Your task to perform on an android device: Go to Yahoo.com Image 0: 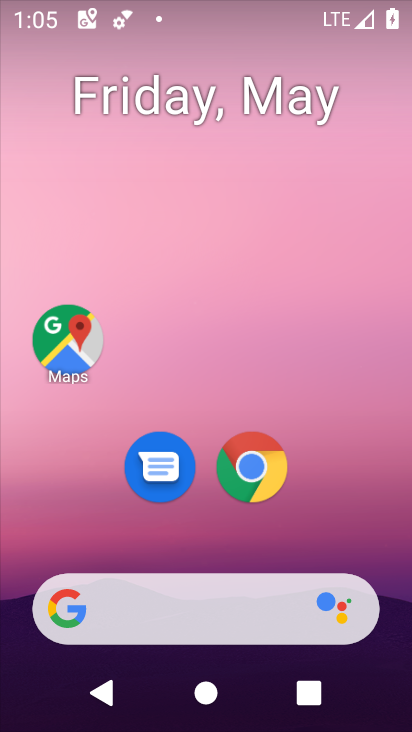
Step 0: drag from (350, 509) to (363, 16)
Your task to perform on an android device: Go to Yahoo.com Image 1: 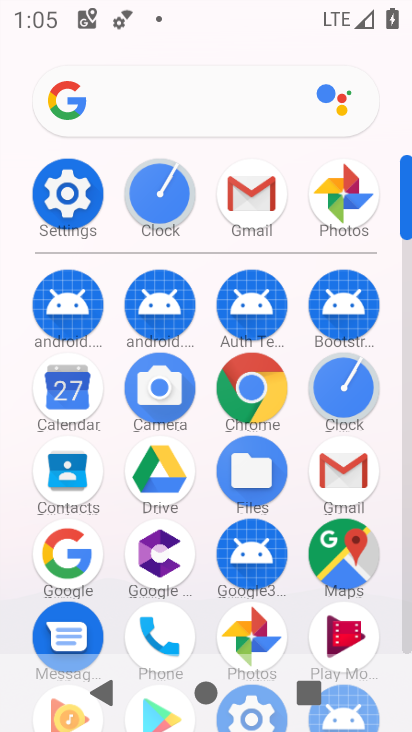
Step 1: click (257, 394)
Your task to perform on an android device: Go to Yahoo.com Image 2: 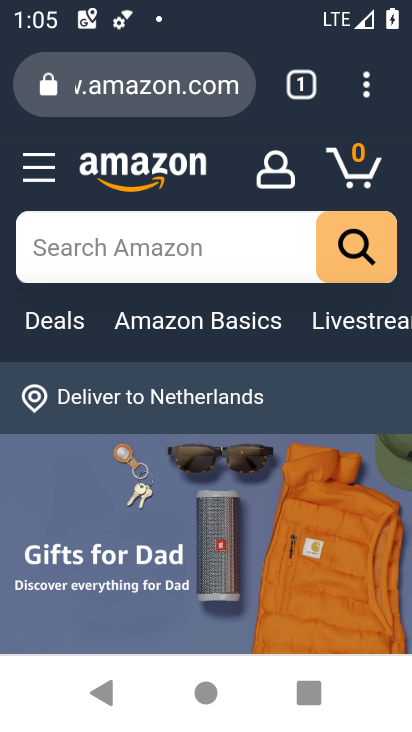
Step 2: click (155, 75)
Your task to perform on an android device: Go to Yahoo.com Image 3: 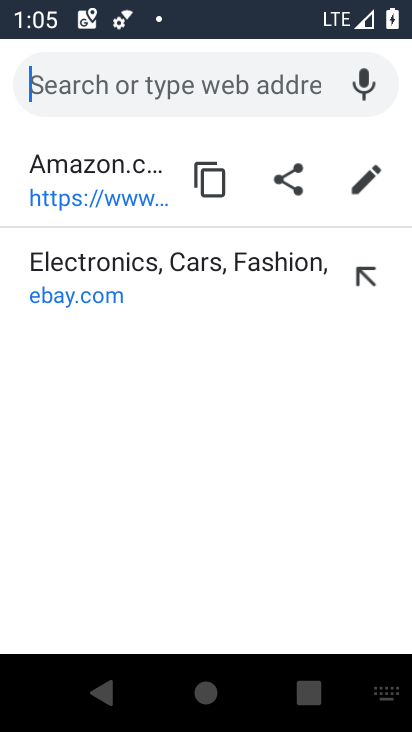
Step 3: type "yahoo"
Your task to perform on an android device: Go to Yahoo.com Image 4: 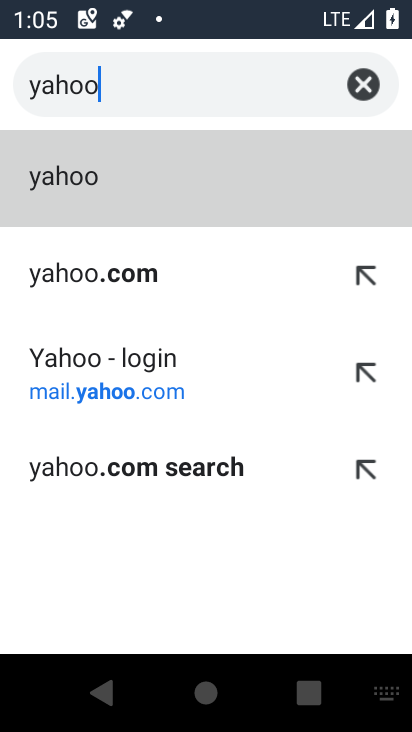
Step 4: click (105, 282)
Your task to perform on an android device: Go to Yahoo.com Image 5: 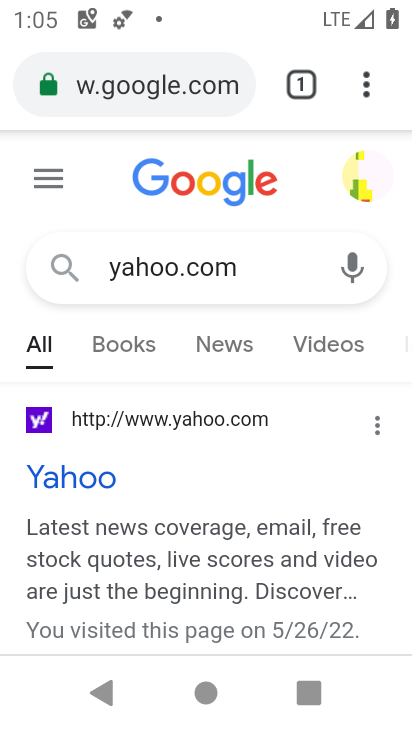
Step 5: click (90, 496)
Your task to perform on an android device: Go to Yahoo.com Image 6: 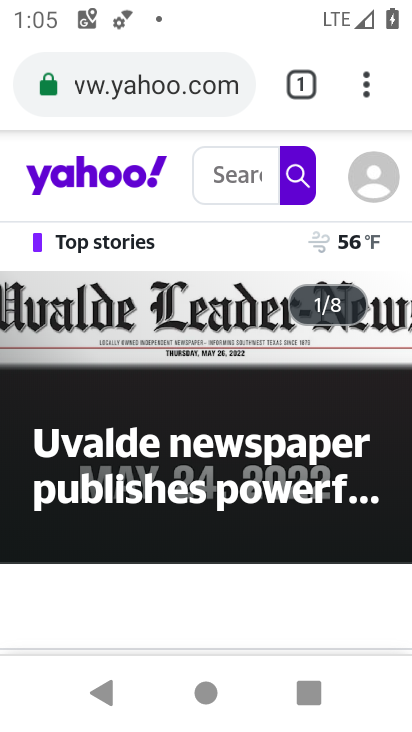
Step 6: task complete